Your task to perform on an android device: Find coffee shops on Maps Image 0: 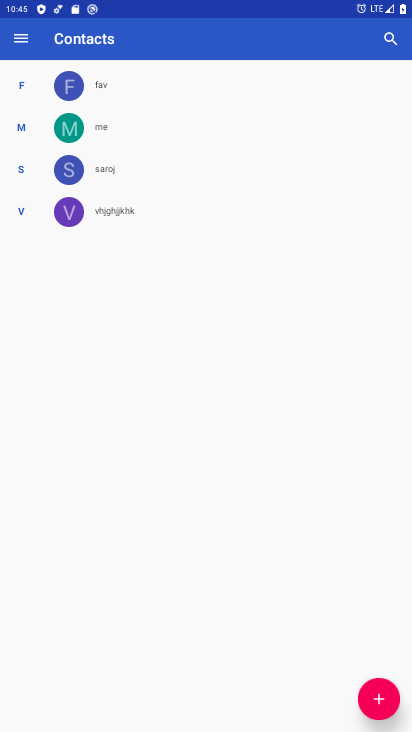
Step 0: press home button
Your task to perform on an android device: Find coffee shops on Maps Image 1: 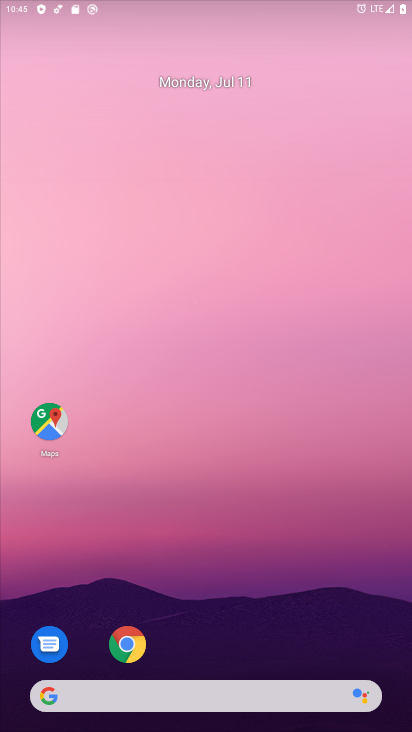
Step 1: drag from (222, 551) to (228, 92)
Your task to perform on an android device: Find coffee shops on Maps Image 2: 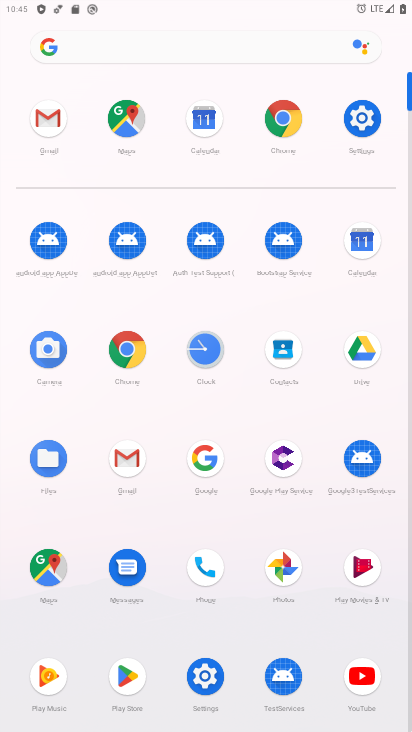
Step 2: click (360, 241)
Your task to perform on an android device: Find coffee shops on Maps Image 3: 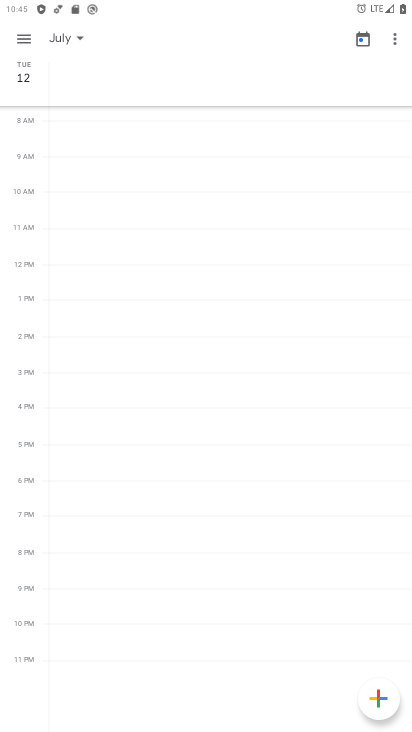
Step 3: press home button
Your task to perform on an android device: Find coffee shops on Maps Image 4: 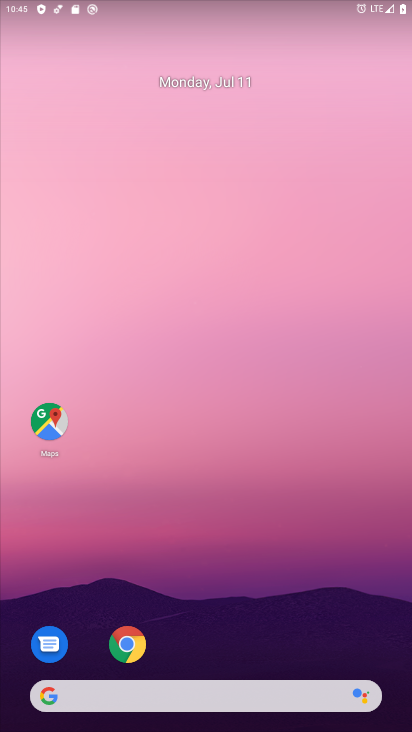
Step 4: drag from (213, 603) to (192, 434)
Your task to perform on an android device: Find coffee shops on Maps Image 5: 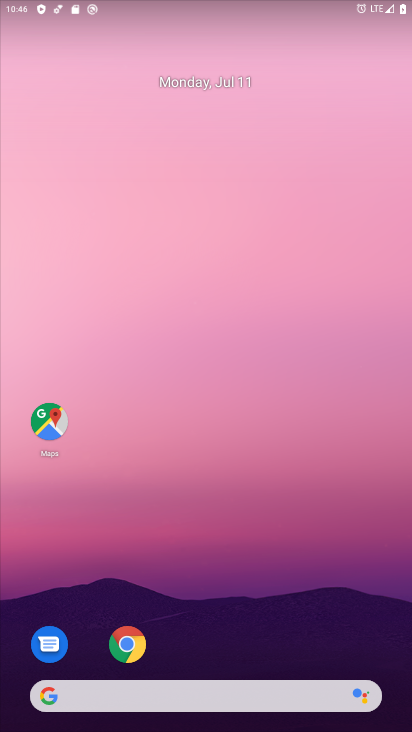
Step 5: click (51, 414)
Your task to perform on an android device: Find coffee shops on Maps Image 6: 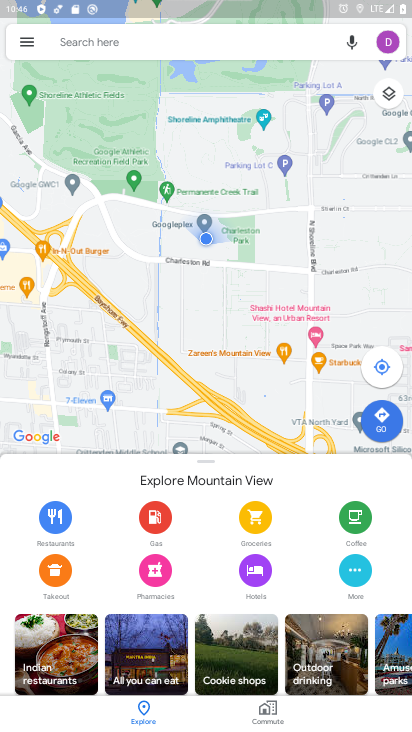
Step 6: click (365, 507)
Your task to perform on an android device: Find coffee shops on Maps Image 7: 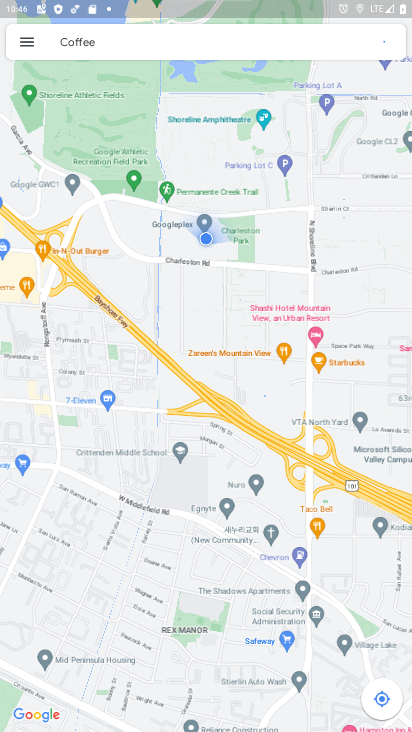
Step 7: task complete